Your task to perform on an android device: uninstall "Facebook Messenger" Image 0: 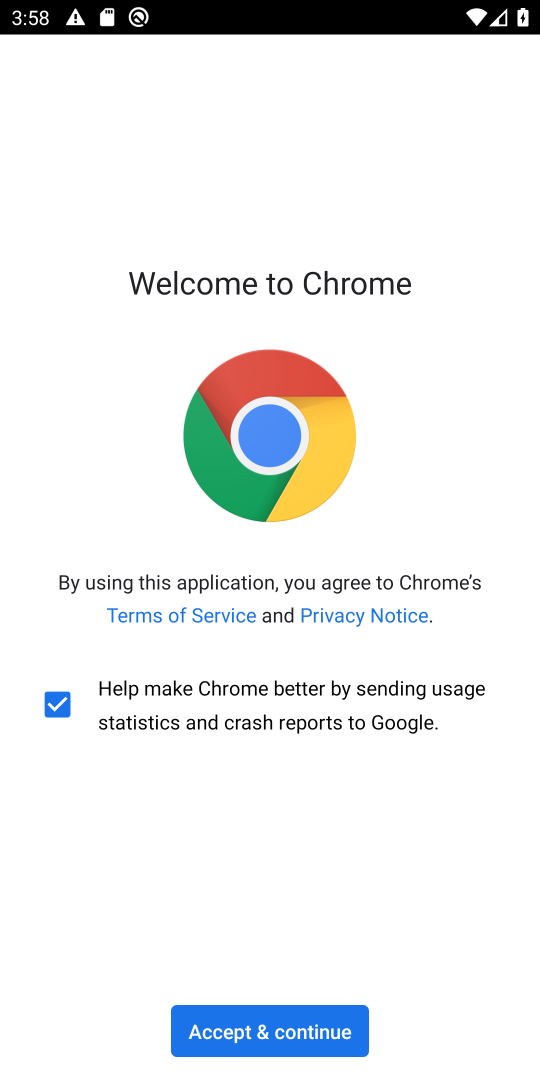
Step 0: press home button
Your task to perform on an android device: uninstall "Facebook Messenger" Image 1: 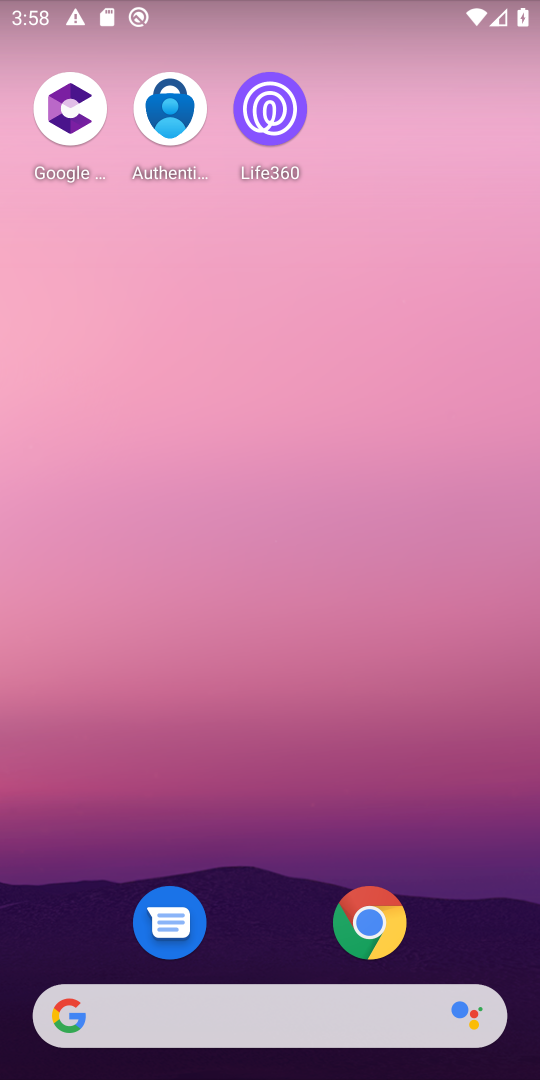
Step 1: drag from (278, 904) to (331, 16)
Your task to perform on an android device: uninstall "Facebook Messenger" Image 2: 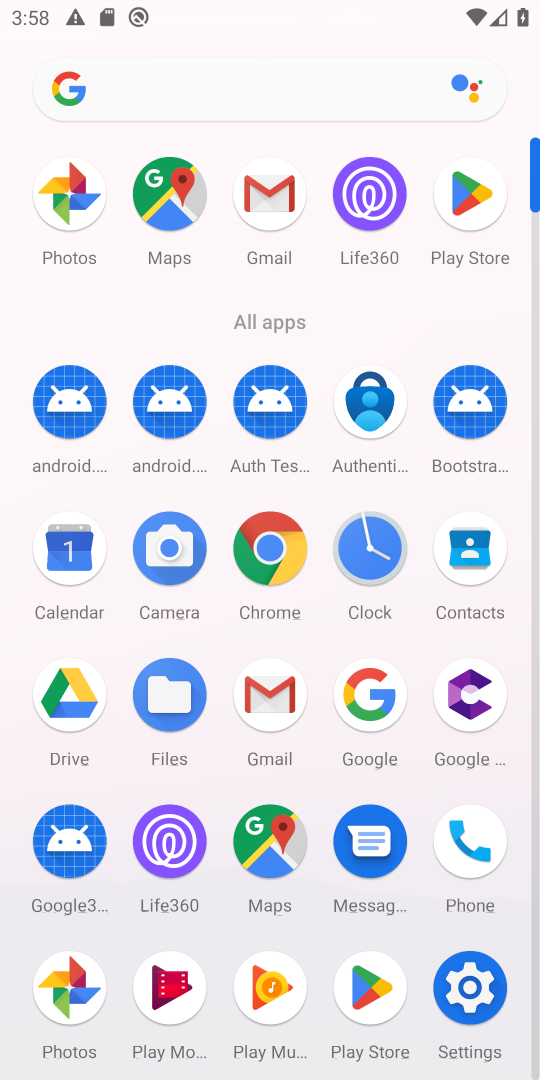
Step 2: click (464, 217)
Your task to perform on an android device: uninstall "Facebook Messenger" Image 3: 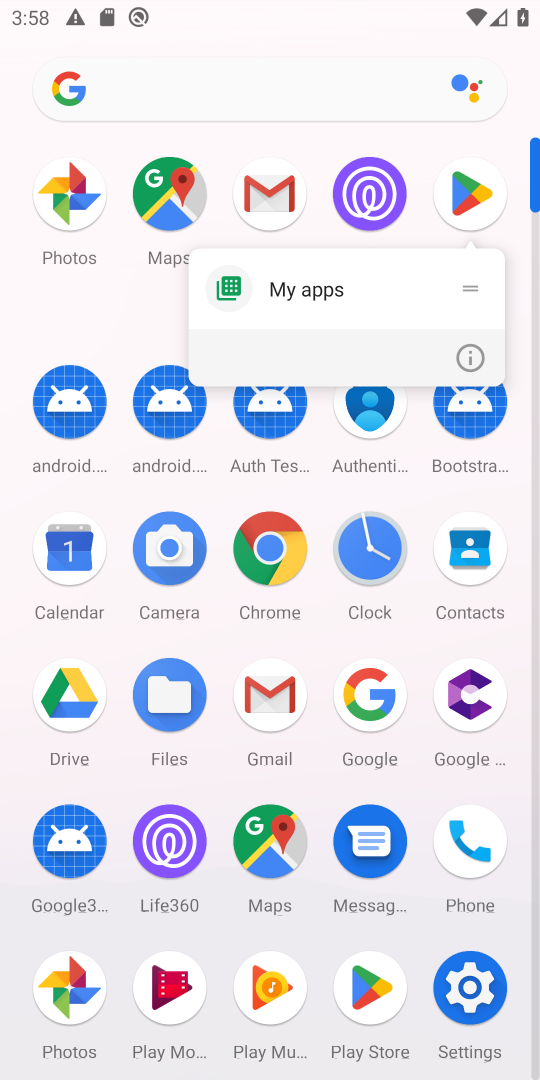
Step 3: click (468, 200)
Your task to perform on an android device: uninstall "Facebook Messenger" Image 4: 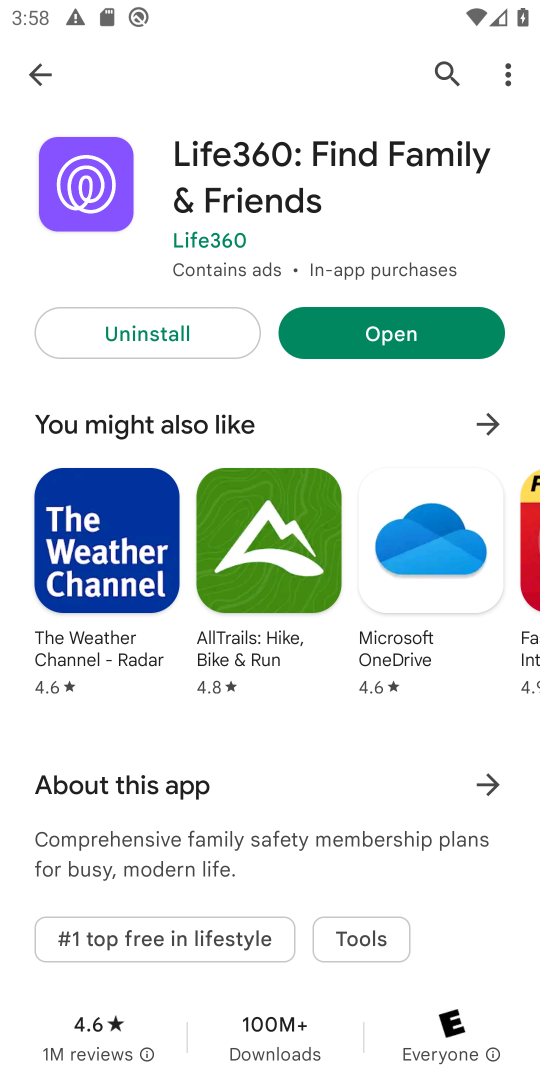
Step 4: click (444, 73)
Your task to perform on an android device: uninstall "Facebook Messenger" Image 5: 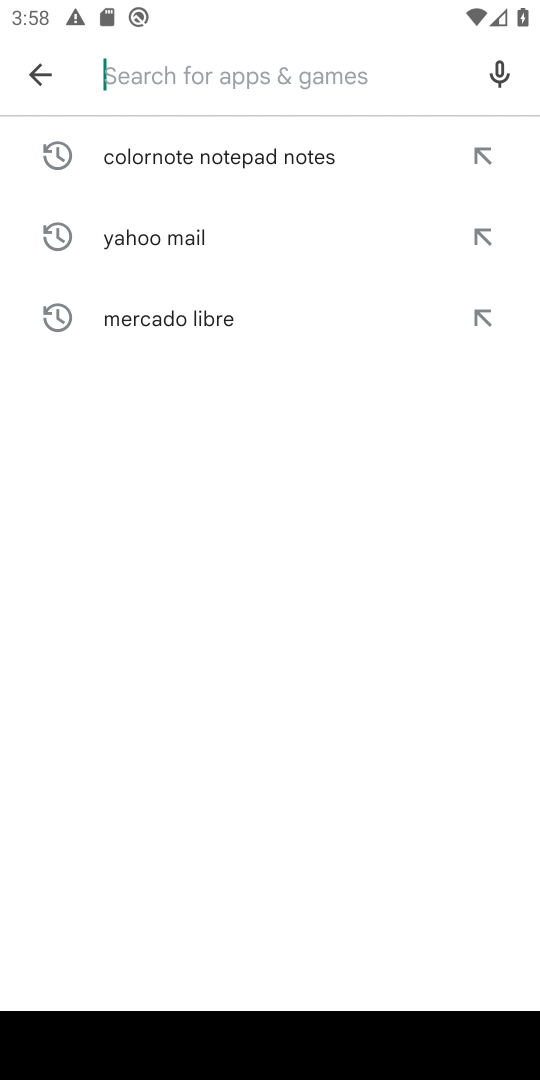
Step 5: type "Facebook Messenger"
Your task to perform on an android device: uninstall "Facebook Messenger" Image 6: 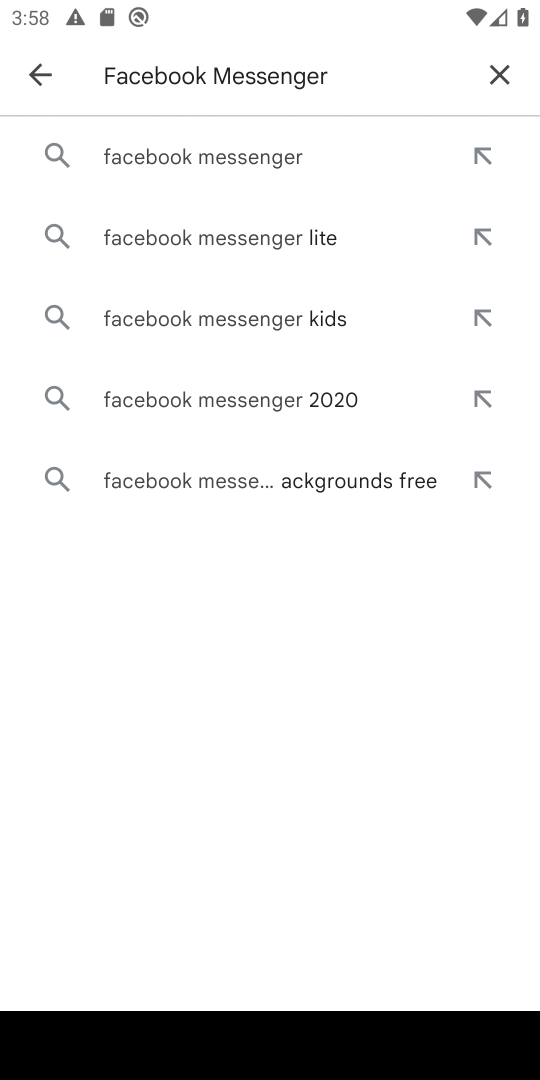
Step 6: click (219, 165)
Your task to perform on an android device: uninstall "Facebook Messenger" Image 7: 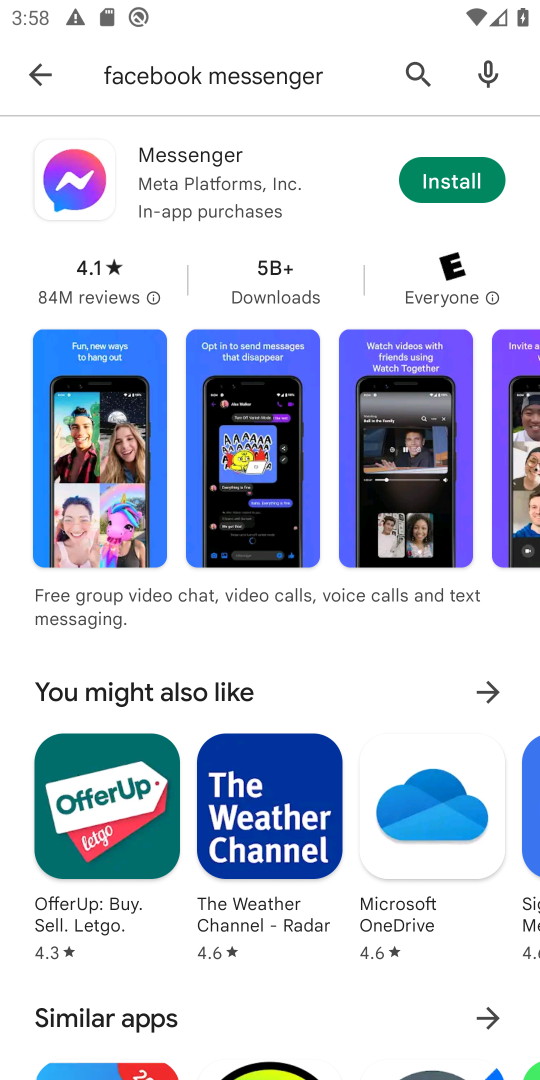
Step 7: task complete